Your task to perform on an android device: make emails show in primary in the gmail app Image 0: 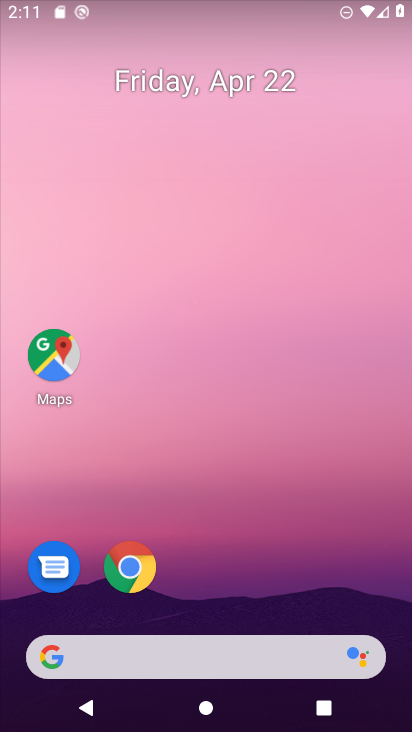
Step 0: drag from (247, 555) to (269, 162)
Your task to perform on an android device: make emails show in primary in the gmail app Image 1: 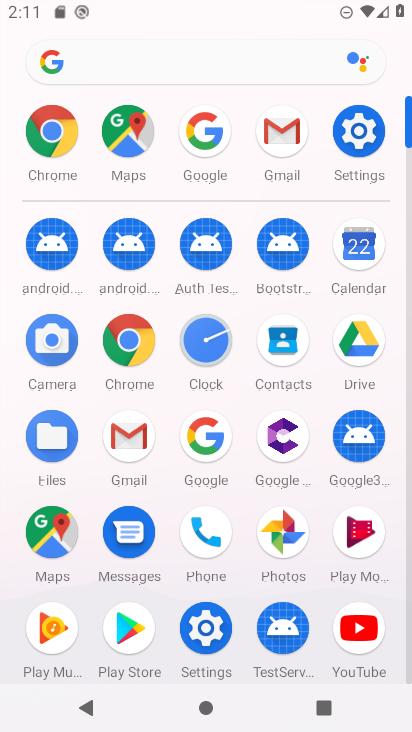
Step 1: click (126, 439)
Your task to perform on an android device: make emails show in primary in the gmail app Image 2: 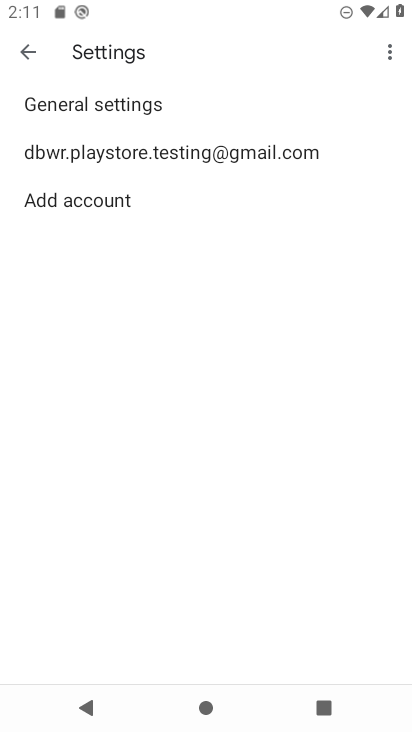
Step 2: click (202, 146)
Your task to perform on an android device: make emails show in primary in the gmail app Image 3: 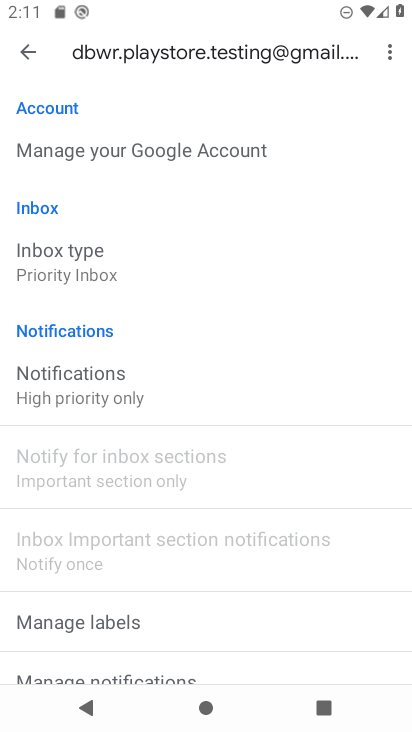
Step 3: click (110, 386)
Your task to perform on an android device: make emails show in primary in the gmail app Image 4: 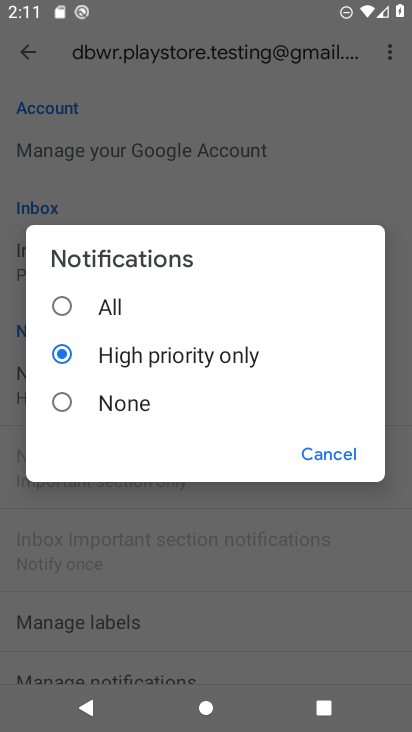
Step 4: click (347, 447)
Your task to perform on an android device: make emails show in primary in the gmail app Image 5: 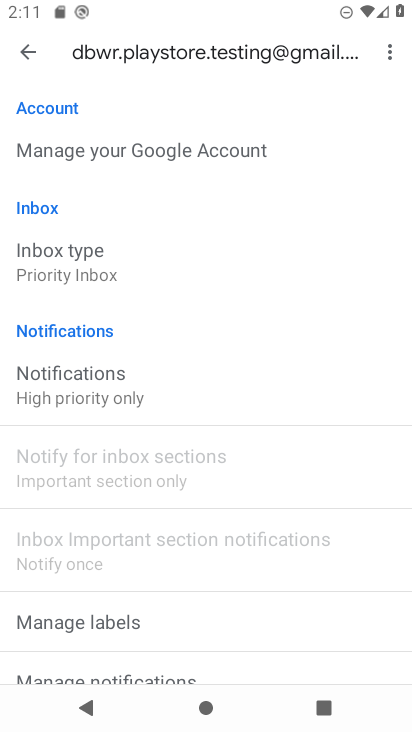
Step 5: click (23, 251)
Your task to perform on an android device: make emails show in primary in the gmail app Image 6: 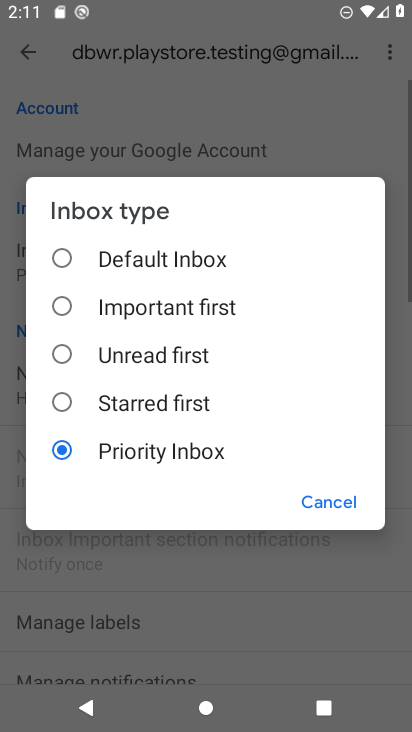
Step 6: click (93, 242)
Your task to perform on an android device: make emails show in primary in the gmail app Image 7: 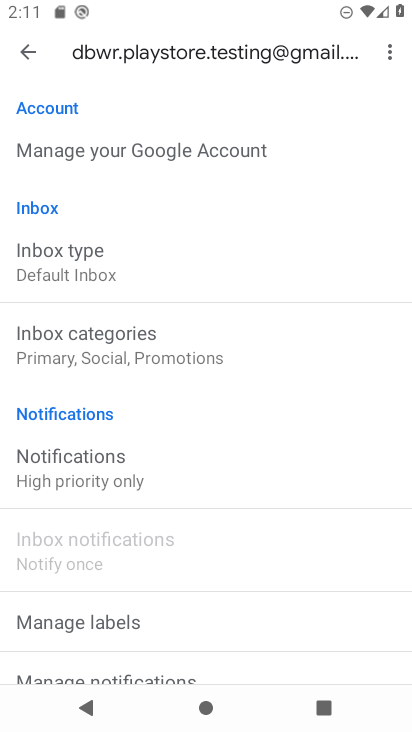
Step 7: click (151, 335)
Your task to perform on an android device: make emails show in primary in the gmail app Image 8: 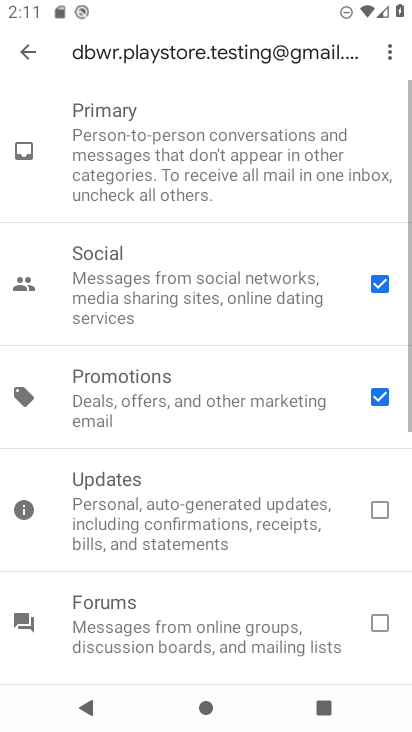
Step 8: click (379, 270)
Your task to perform on an android device: make emails show in primary in the gmail app Image 9: 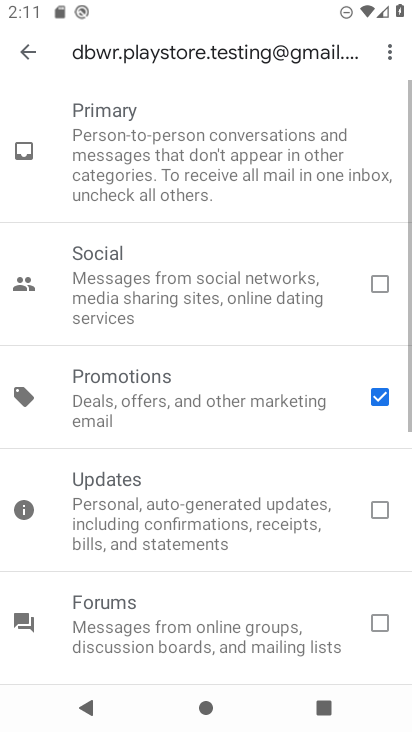
Step 9: click (382, 405)
Your task to perform on an android device: make emails show in primary in the gmail app Image 10: 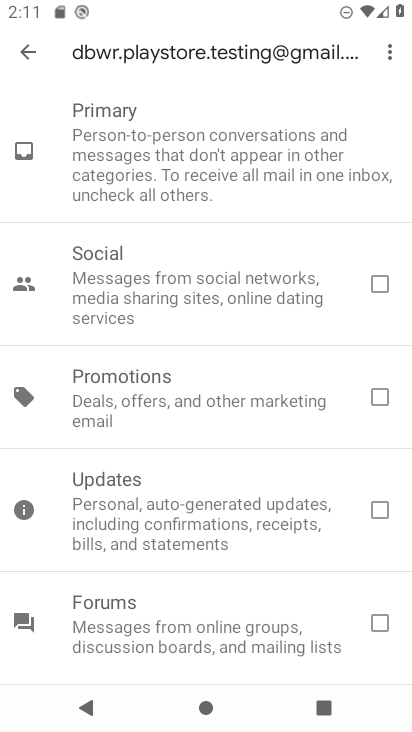
Step 10: task complete